Your task to perform on an android device: What's on my calendar tomorrow? Image 0: 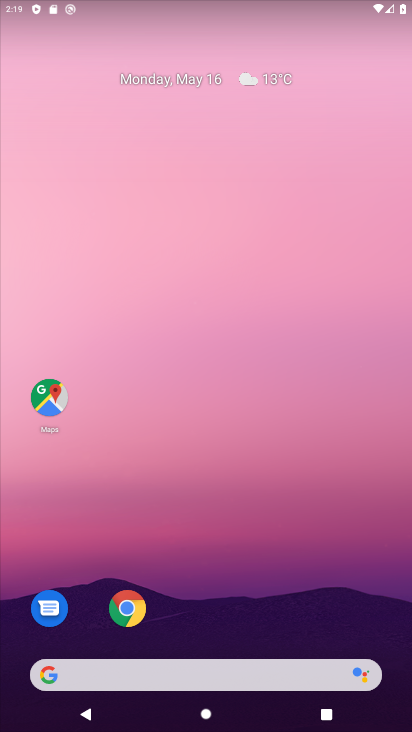
Step 0: click (128, 607)
Your task to perform on an android device: What's on my calendar tomorrow? Image 1: 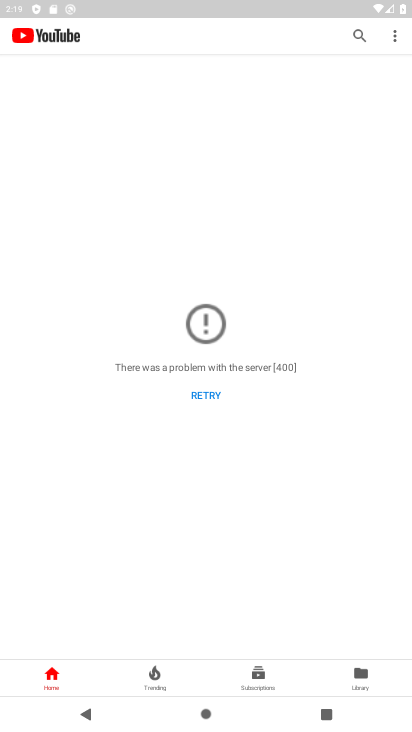
Step 1: press home button
Your task to perform on an android device: What's on my calendar tomorrow? Image 2: 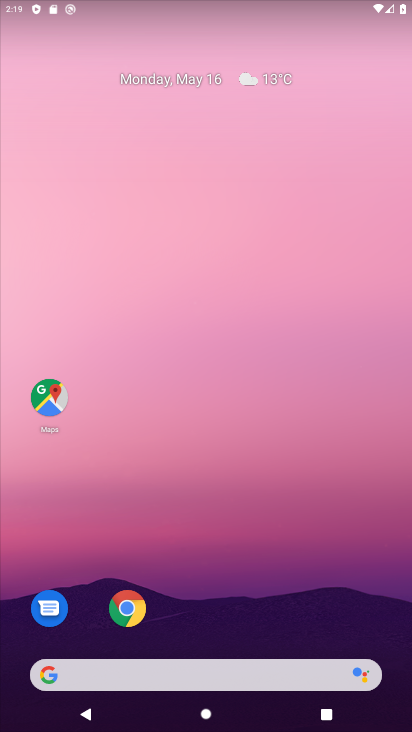
Step 2: drag from (244, 609) to (128, 9)
Your task to perform on an android device: What's on my calendar tomorrow? Image 3: 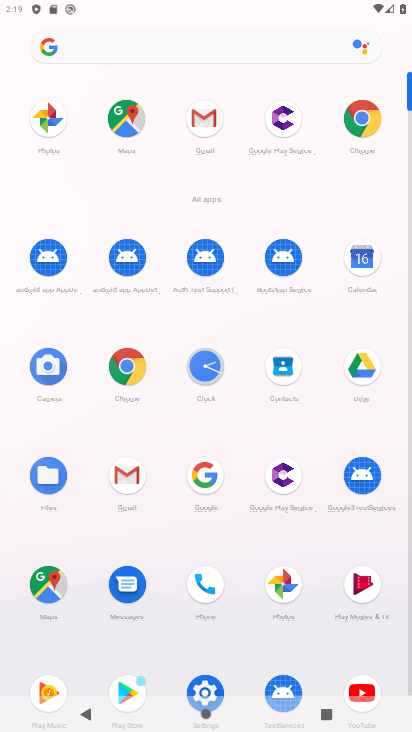
Step 3: click (366, 261)
Your task to perform on an android device: What's on my calendar tomorrow? Image 4: 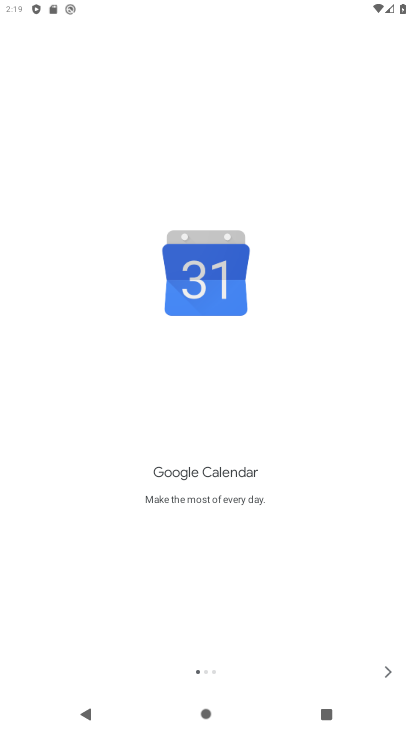
Step 4: click (385, 678)
Your task to perform on an android device: What's on my calendar tomorrow? Image 5: 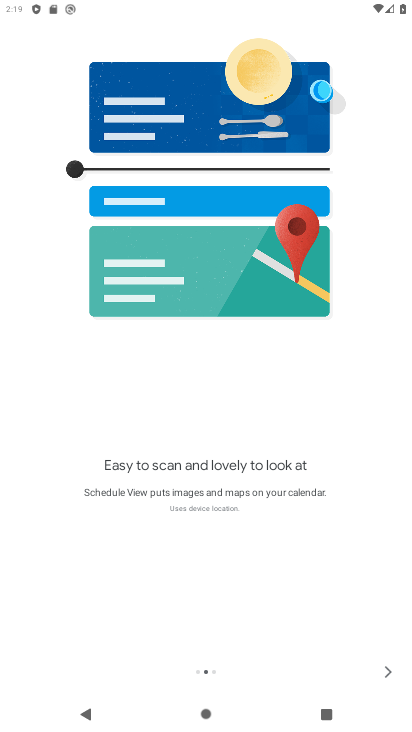
Step 5: click (384, 675)
Your task to perform on an android device: What's on my calendar tomorrow? Image 6: 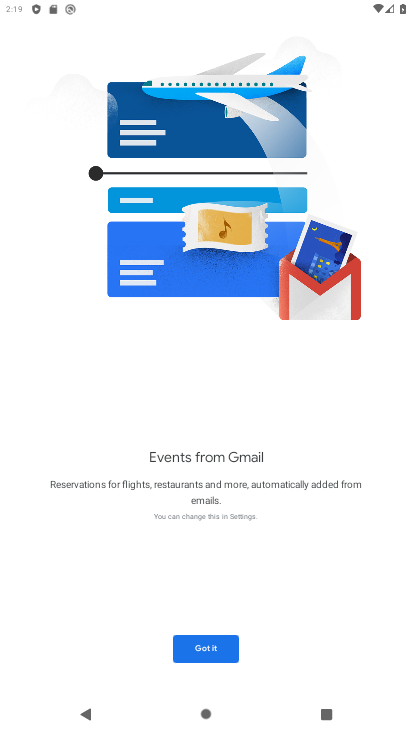
Step 6: click (384, 675)
Your task to perform on an android device: What's on my calendar tomorrow? Image 7: 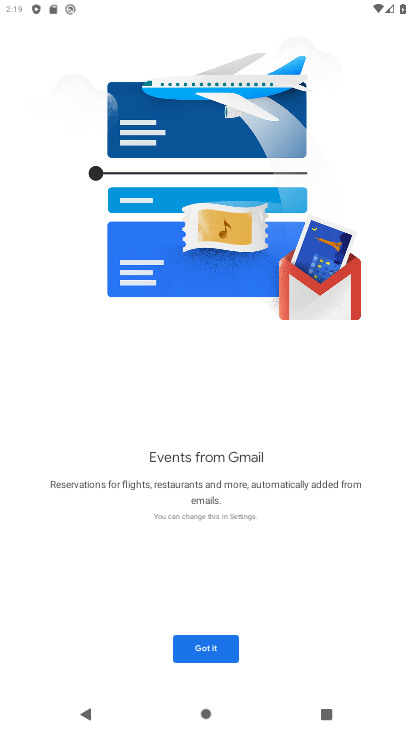
Step 7: click (212, 649)
Your task to perform on an android device: What's on my calendar tomorrow? Image 8: 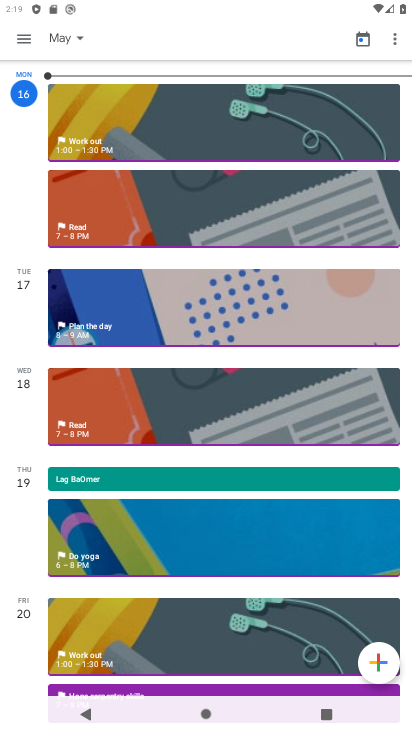
Step 8: task complete